Your task to perform on an android device: move an email to a new category in the gmail app Image 0: 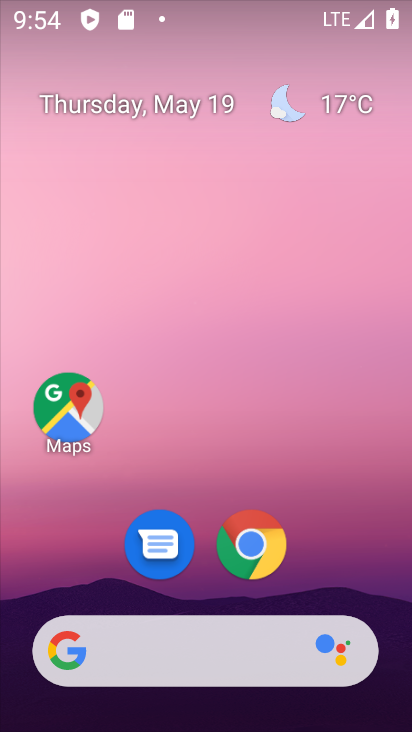
Step 0: press home button
Your task to perform on an android device: move an email to a new category in the gmail app Image 1: 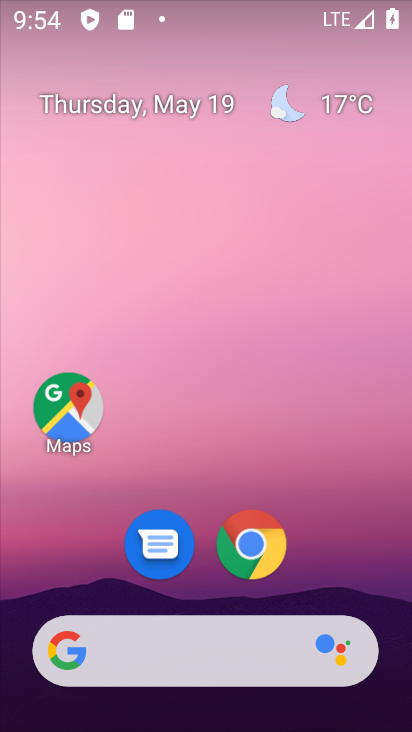
Step 1: drag from (228, 718) to (191, 161)
Your task to perform on an android device: move an email to a new category in the gmail app Image 2: 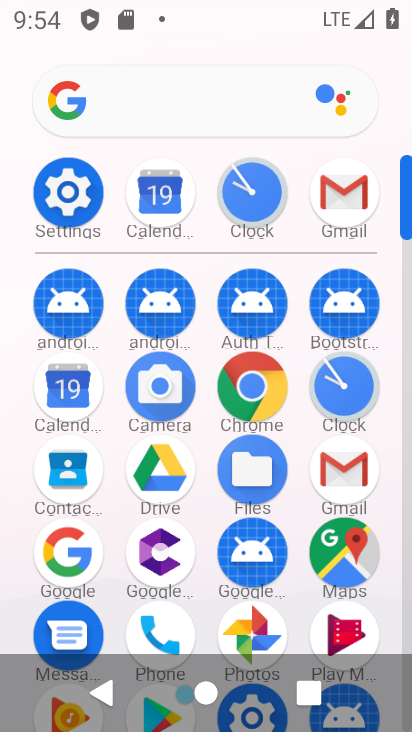
Step 2: click (348, 209)
Your task to perform on an android device: move an email to a new category in the gmail app Image 3: 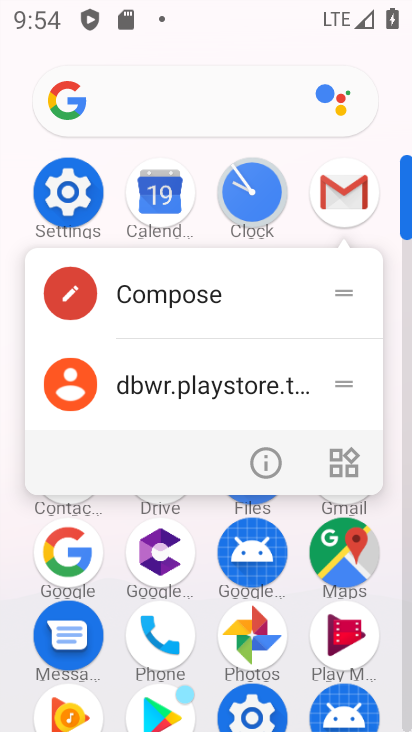
Step 3: click (341, 180)
Your task to perform on an android device: move an email to a new category in the gmail app Image 4: 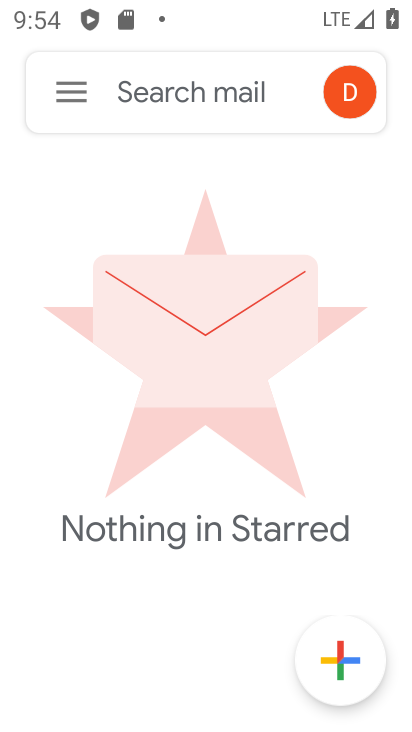
Step 4: click (56, 90)
Your task to perform on an android device: move an email to a new category in the gmail app Image 5: 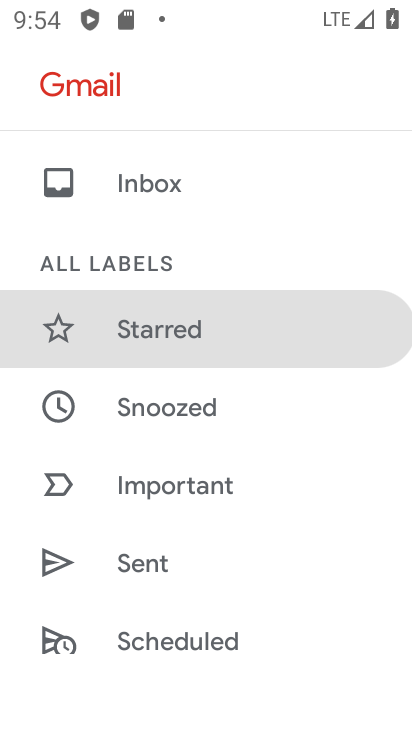
Step 5: click (148, 179)
Your task to perform on an android device: move an email to a new category in the gmail app Image 6: 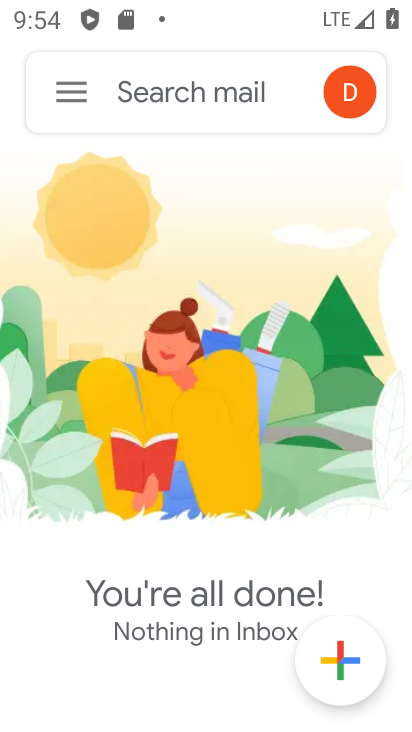
Step 6: task complete